Your task to perform on an android device: Go to network settings Image 0: 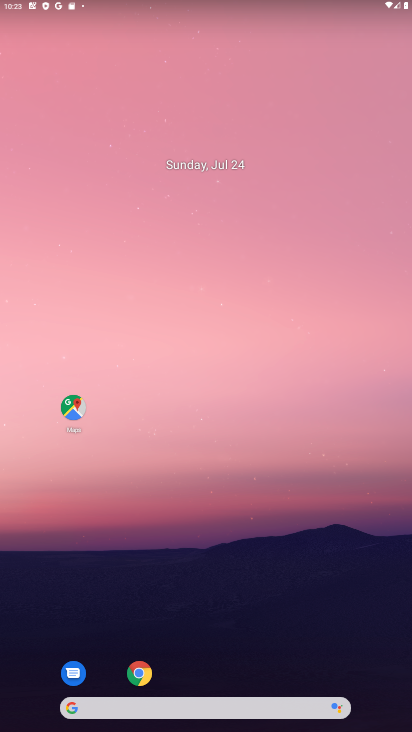
Step 0: drag from (50, 627) to (236, 18)
Your task to perform on an android device: Go to network settings Image 1: 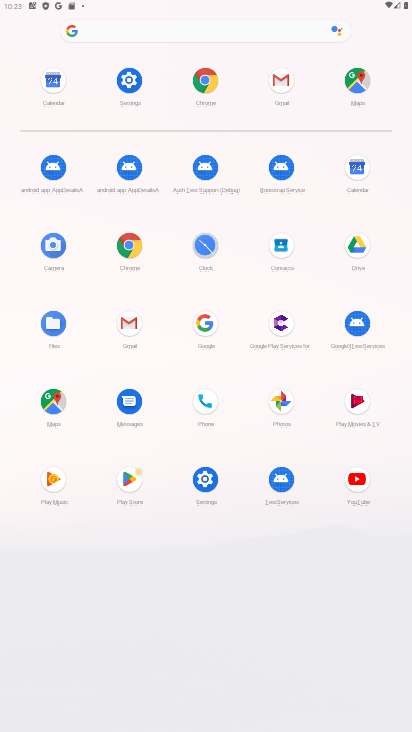
Step 1: click (199, 486)
Your task to perform on an android device: Go to network settings Image 2: 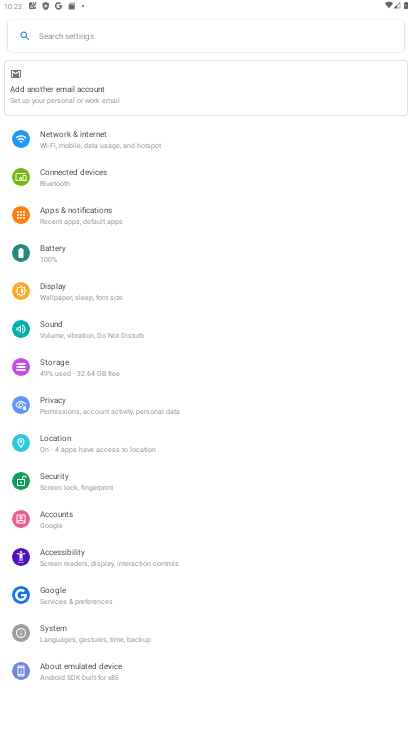
Step 2: click (83, 127)
Your task to perform on an android device: Go to network settings Image 3: 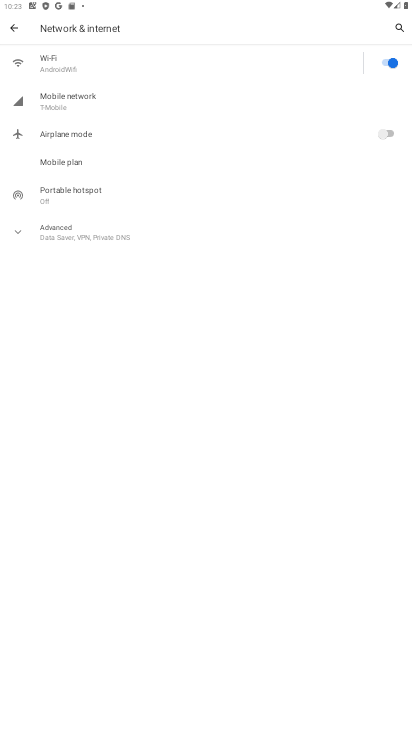
Step 3: task complete